Your task to perform on an android device: toggle notifications settings in the gmail app Image 0: 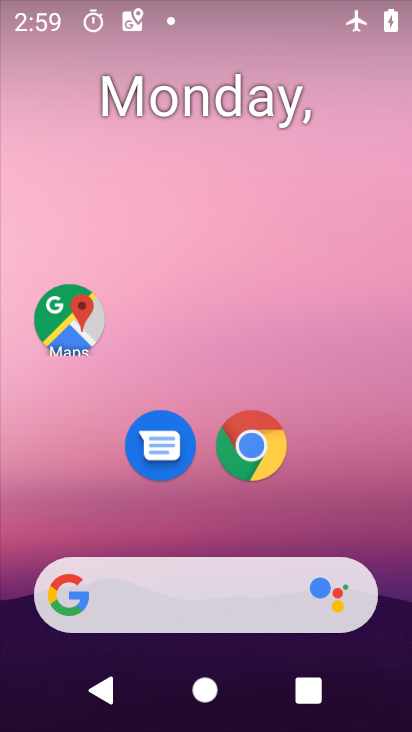
Step 0: drag from (188, 593) to (201, 181)
Your task to perform on an android device: toggle notifications settings in the gmail app Image 1: 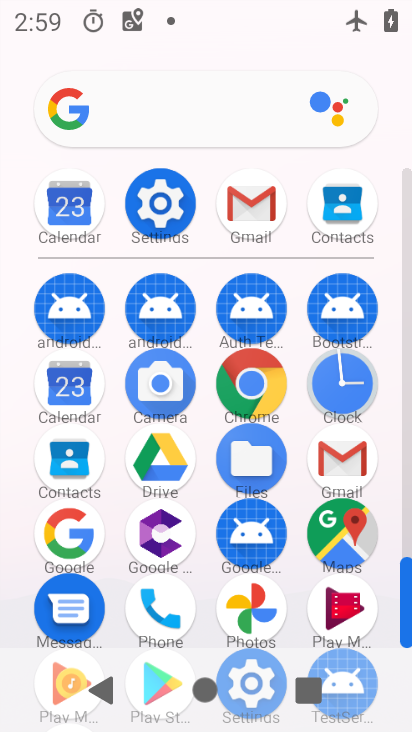
Step 1: click (253, 194)
Your task to perform on an android device: toggle notifications settings in the gmail app Image 2: 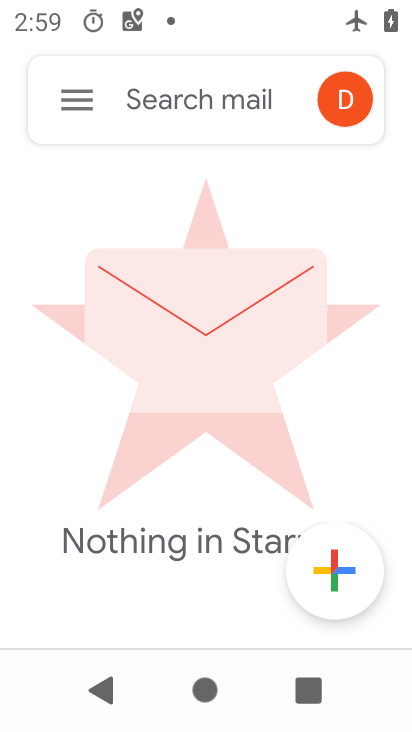
Step 2: click (93, 113)
Your task to perform on an android device: toggle notifications settings in the gmail app Image 3: 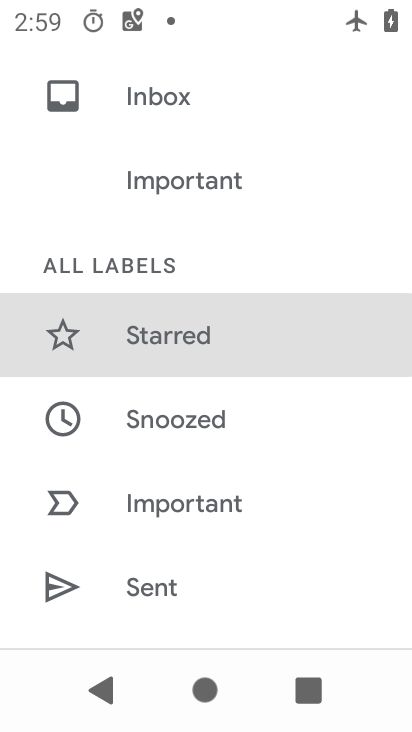
Step 3: drag from (214, 530) to (182, 71)
Your task to perform on an android device: toggle notifications settings in the gmail app Image 4: 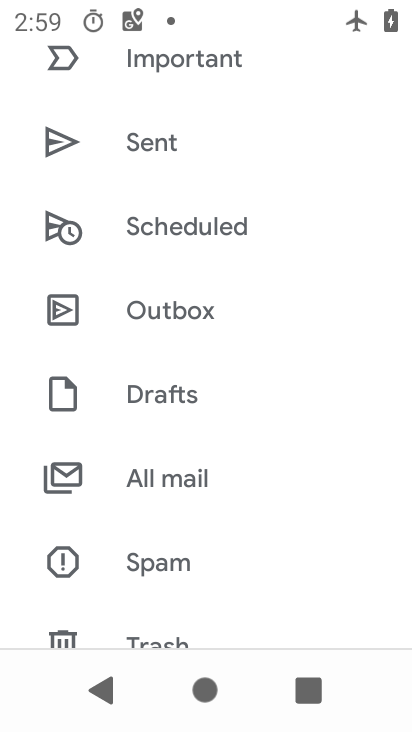
Step 4: drag from (193, 595) to (149, 106)
Your task to perform on an android device: toggle notifications settings in the gmail app Image 5: 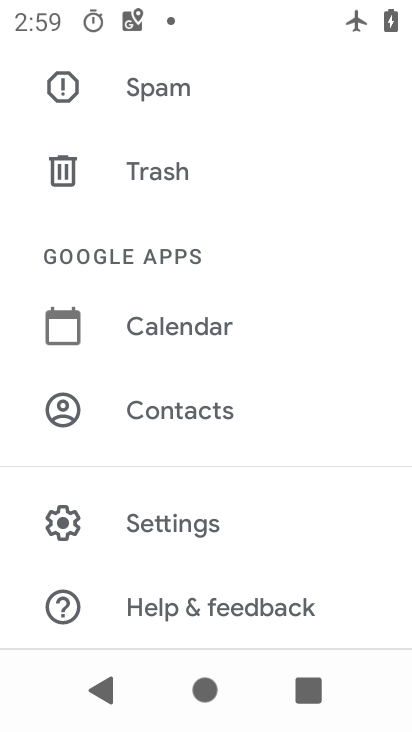
Step 5: click (168, 523)
Your task to perform on an android device: toggle notifications settings in the gmail app Image 6: 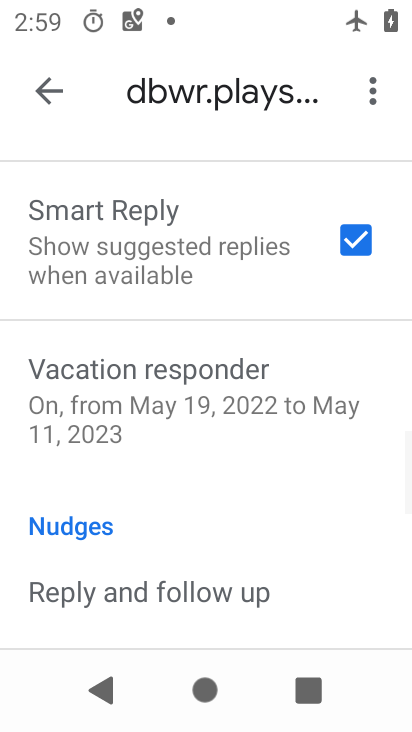
Step 6: drag from (194, 241) to (213, 706)
Your task to perform on an android device: toggle notifications settings in the gmail app Image 7: 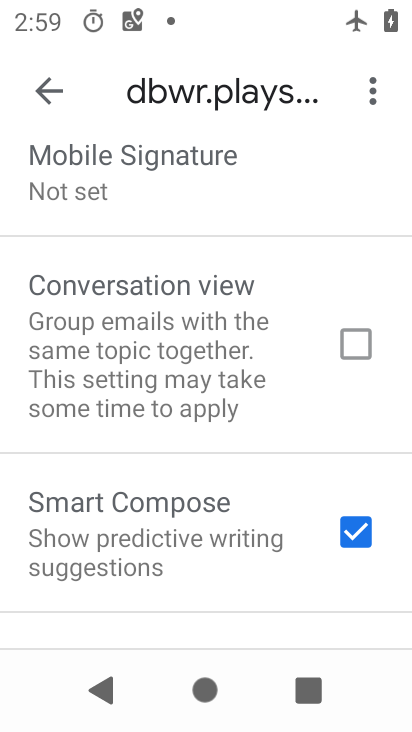
Step 7: drag from (184, 274) to (216, 525)
Your task to perform on an android device: toggle notifications settings in the gmail app Image 8: 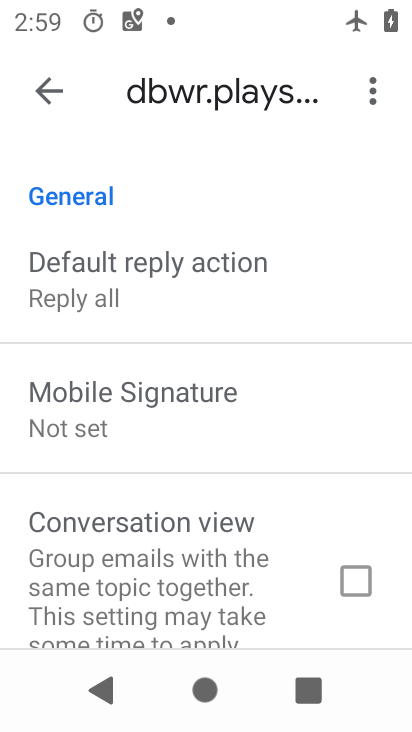
Step 8: drag from (115, 276) to (172, 664)
Your task to perform on an android device: toggle notifications settings in the gmail app Image 9: 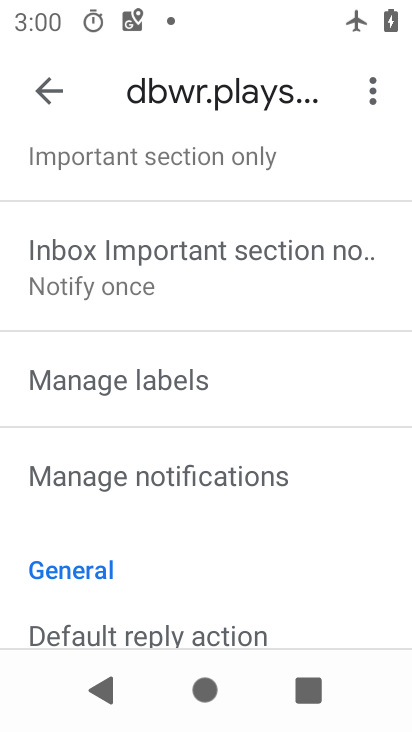
Step 9: click (164, 487)
Your task to perform on an android device: toggle notifications settings in the gmail app Image 10: 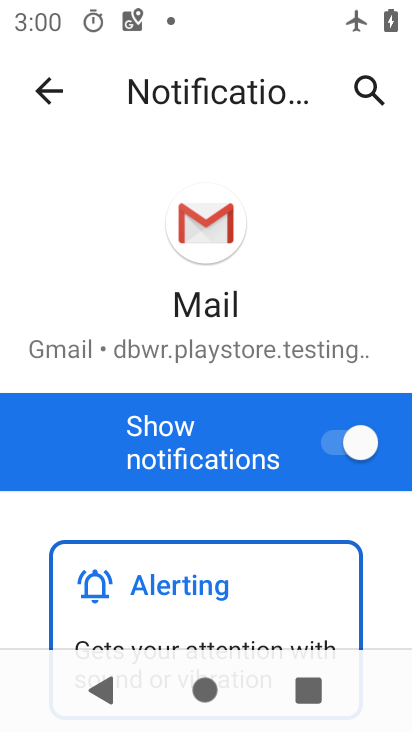
Step 10: drag from (277, 473) to (259, 289)
Your task to perform on an android device: toggle notifications settings in the gmail app Image 11: 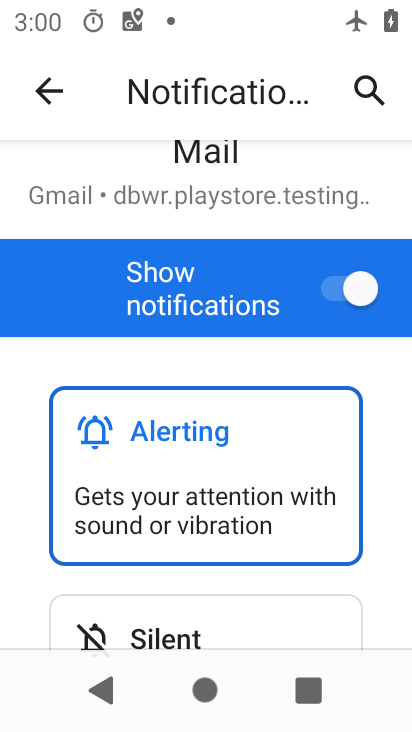
Step 11: click (331, 288)
Your task to perform on an android device: toggle notifications settings in the gmail app Image 12: 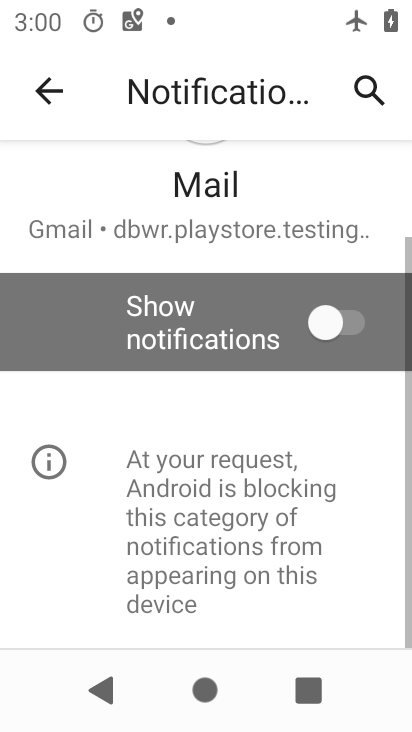
Step 12: task complete